Your task to perform on an android device: Go to wifi settings Image 0: 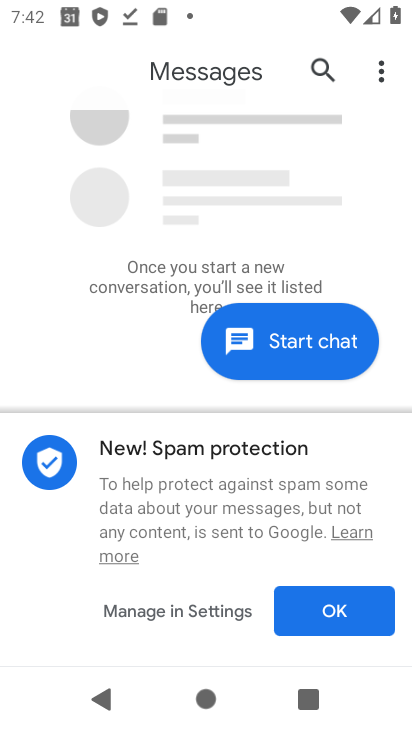
Step 0: drag from (349, 487) to (325, 201)
Your task to perform on an android device: Go to wifi settings Image 1: 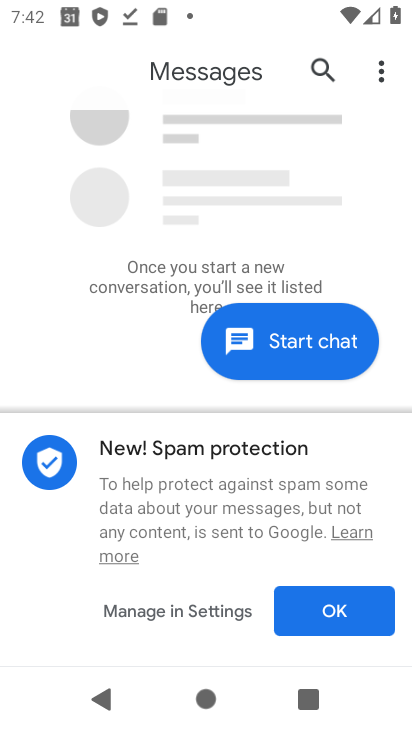
Step 1: press home button
Your task to perform on an android device: Go to wifi settings Image 2: 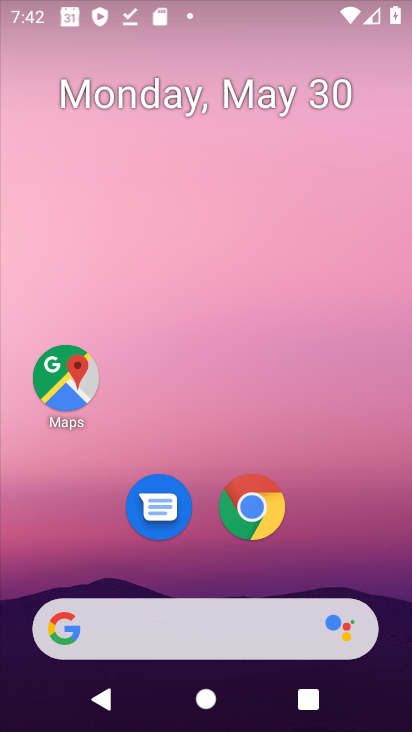
Step 2: drag from (364, 455) to (342, 181)
Your task to perform on an android device: Go to wifi settings Image 3: 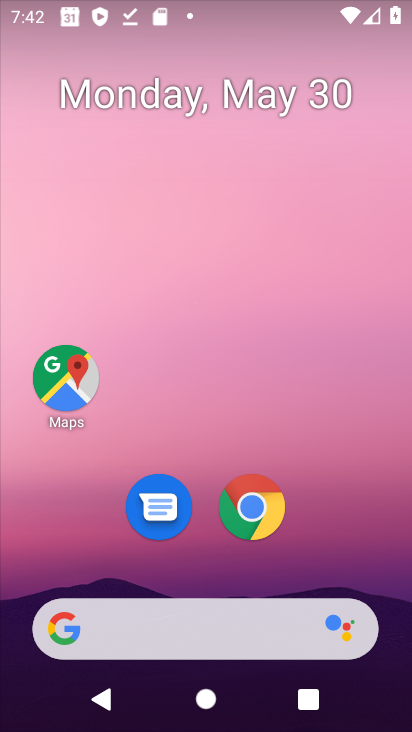
Step 3: drag from (365, 374) to (361, 145)
Your task to perform on an android device: Go to wifi settings Image 4: 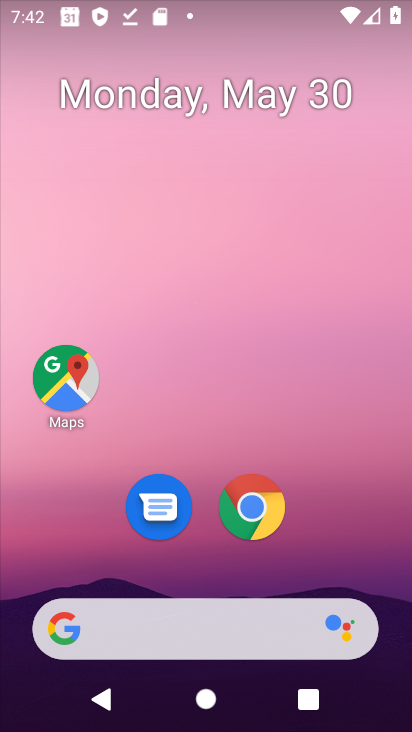
Step 4: drag from (329, 541) to (329, 265)
Your task to perform on an android device: Go to wifi settings Image 5: 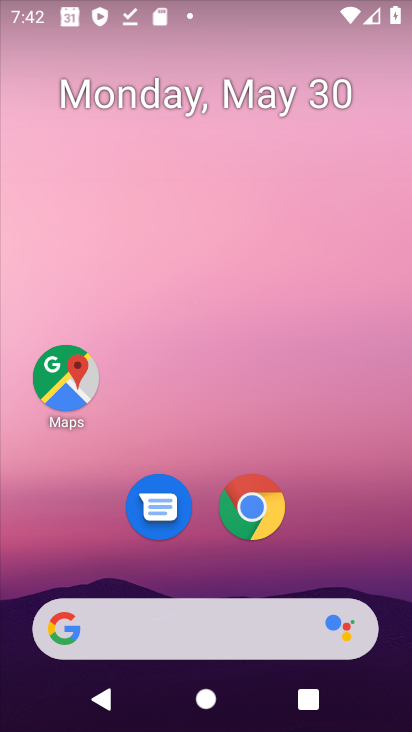
Step 5: drag from (354, 494) to (332, 73)
Your task to perform on an android device: Go to wifi settings Image 6: 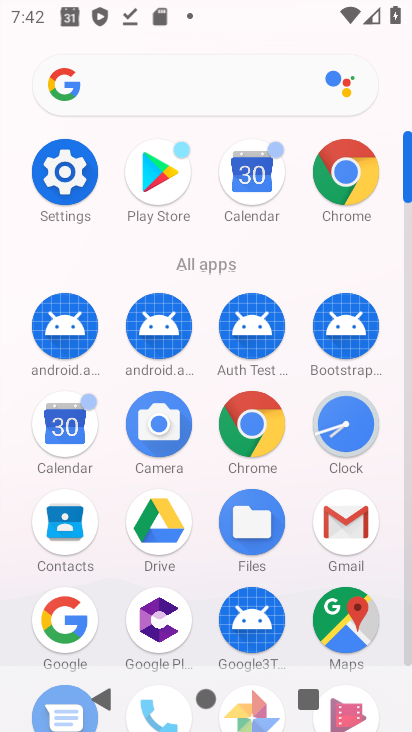
Step 6: click (84, 175)
Your task to perform on an android device: Go to wifi settings Image 7: 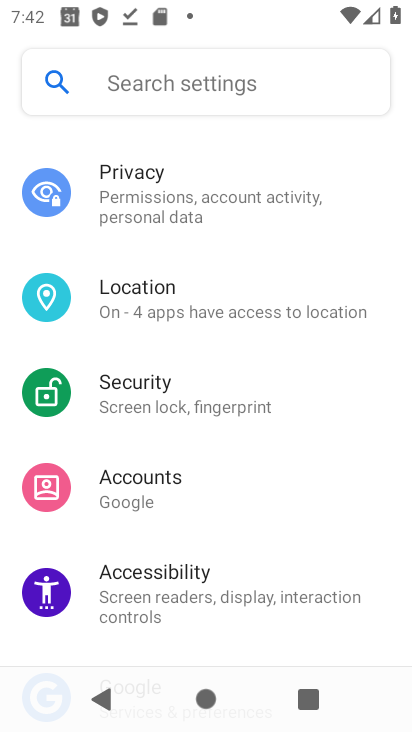
Step 7: drag from (301, 508) to (307, 230)
Your task to perform on an android device: Go to wifi settings Image 8: 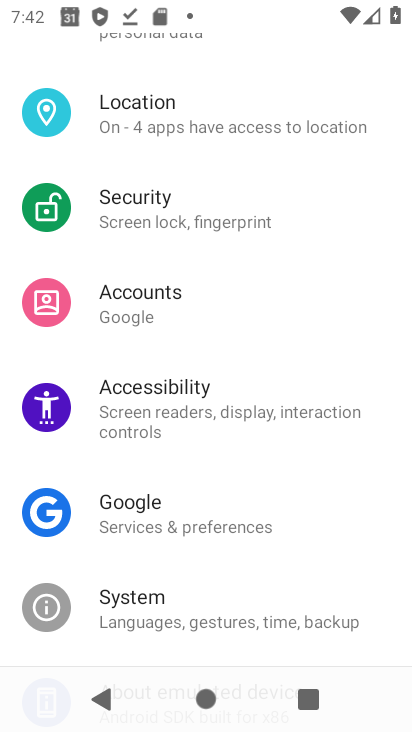
Step 8: drag from (316, 563) to (289, 192)
Your task to perform on an android device: Go to wifi settings Image 9: 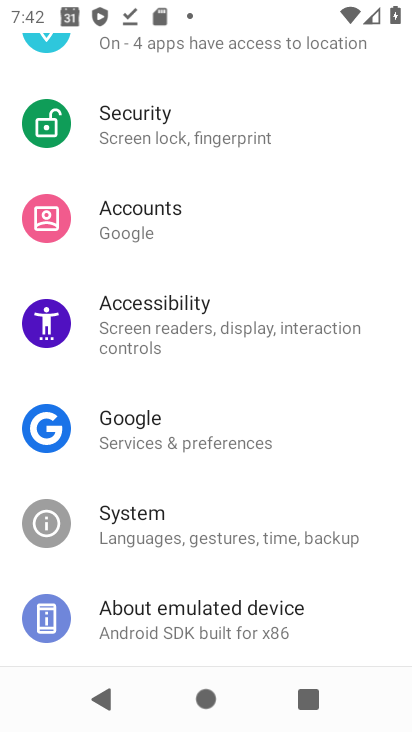
Step 9: drag from (259, 189) to (309, 512)
Your task to perform on an android device: Go to wifi settings Image 10: 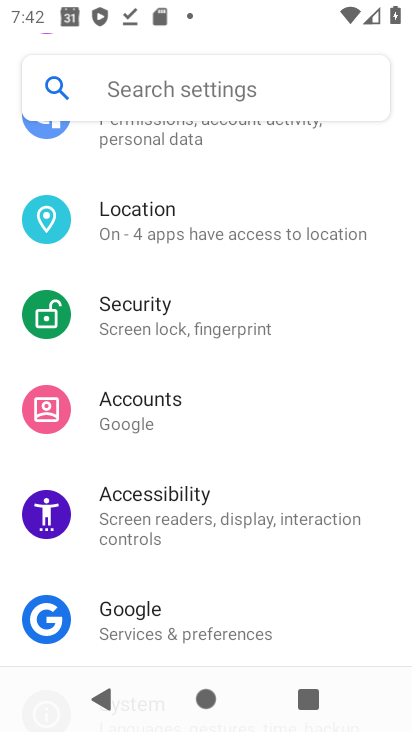
Step 10: drag from (274, 246) to (322, 529)
Your task to perform on an android device: Go to wifi settings Image 11: 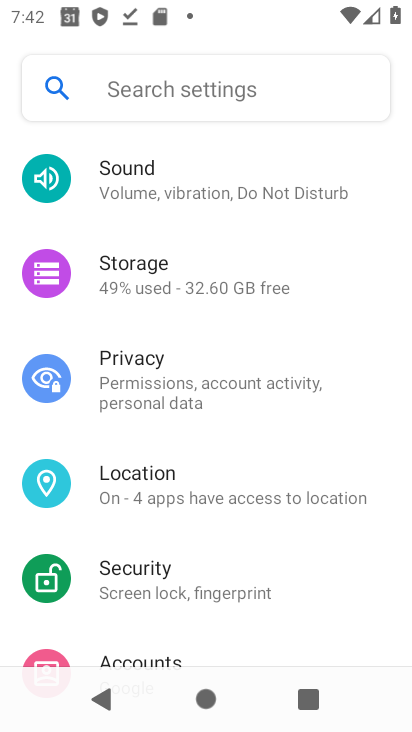
Step 11: drag from (243, 155) to (309, 508)
Your task to perform on an android device: Go to wifi settings Image 12: 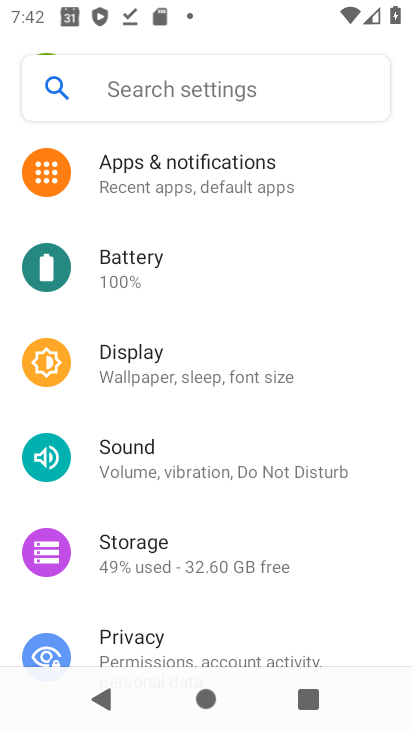
Step 12: drag from (221, 214) to (316, 569)
Your task to perform on an android device: Go to wifi settings Image 13: 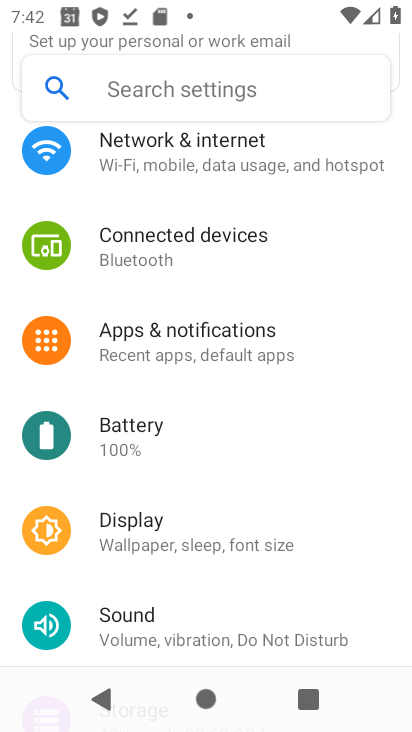
Step 13: click (150, 172)
Your task to perform on an android device: Go to wifi settings Image 14: 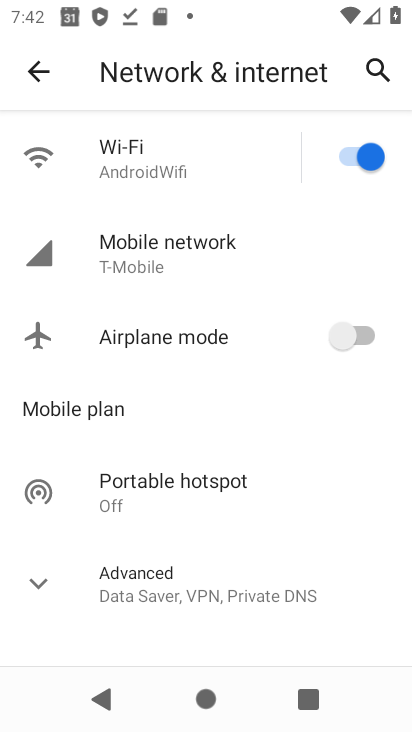
Step 14: click (163, 159)
Your task to perform on an android device: Go to wifi settings Image 15: 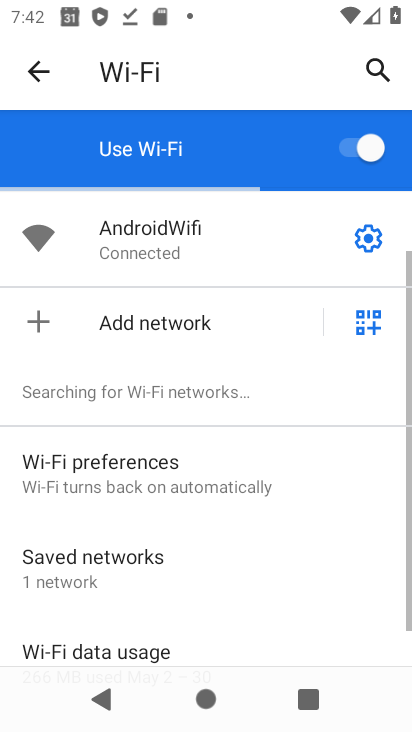
Step 15: click (368, 238)
Your task to perform on an android device: Go to wifi settings Image 16: 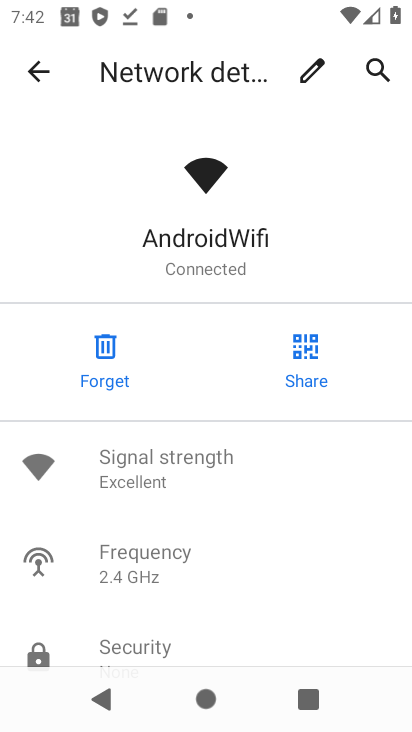
Step 16: task complete